Your task to perform on an android device: toggle pop-ups in chrome Image 0: 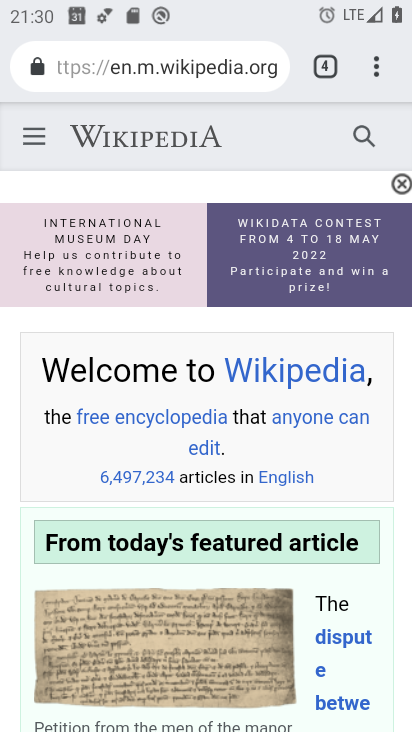
Step 0: press home button
Your task to perform on an android device: toggle pop-ups in chrome Image 1: 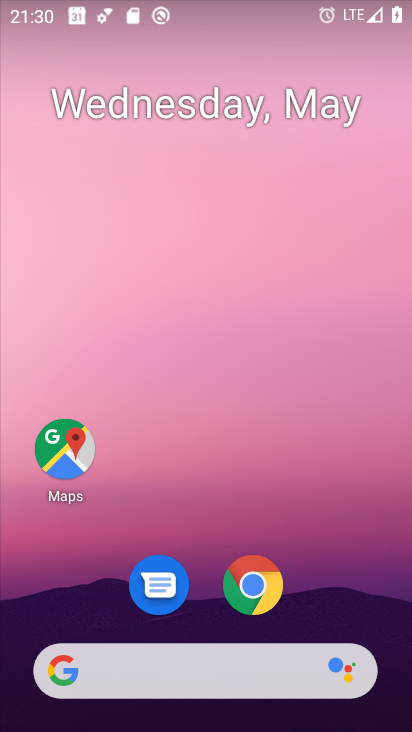
Step 1: click (259, 573)
Your task to perform on an android device: toggle pop-ups in chrome Image 2: 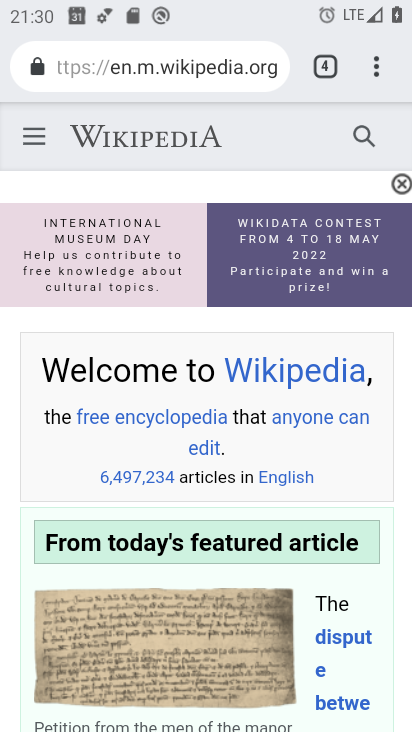
Step 2: click (373, 68)
Your task to perform on an android device: toggle pop-ups in chrome Image 3: 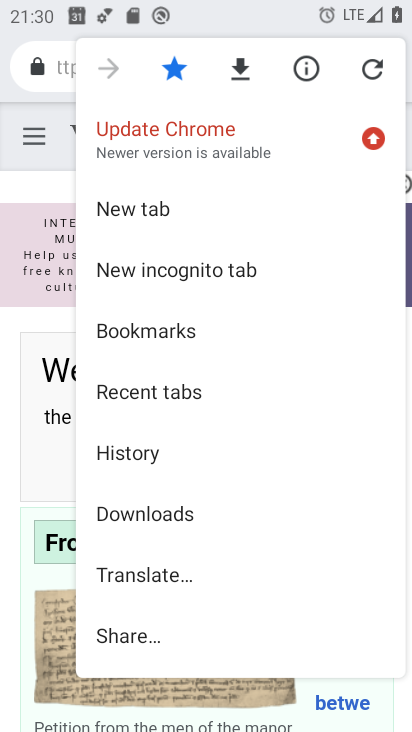
Step 3: drag from (247, 551) to (277, 127)
Your task to perform on an android device: toggle pop-ups in chrome Image 4: 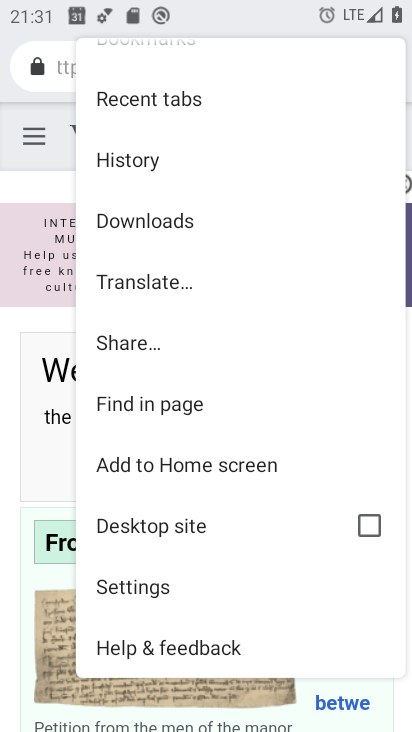
Step 4: click (183, 584)
Your task to perform on an android device: toggle pop-ups in chrome Image 5: 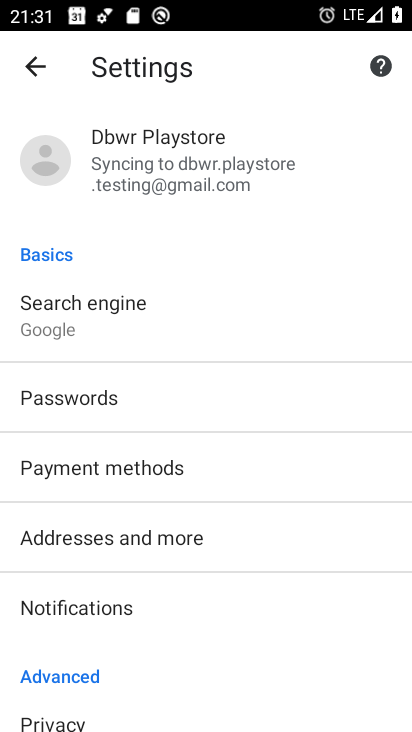
Step 5: drag from (205, 615) to (177, 165)
Your task to perform on an android device: toggle pop-ups in chrome Image 6: 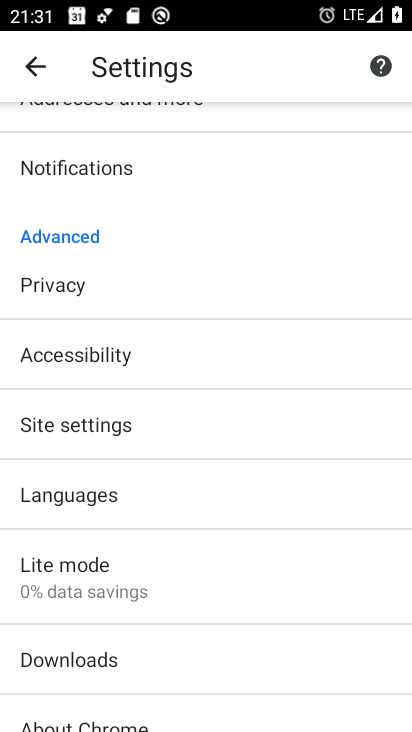
Step 6: click (203, 432)
Your task to perform on an android device: toggle pop-ups in chrome Image 7: 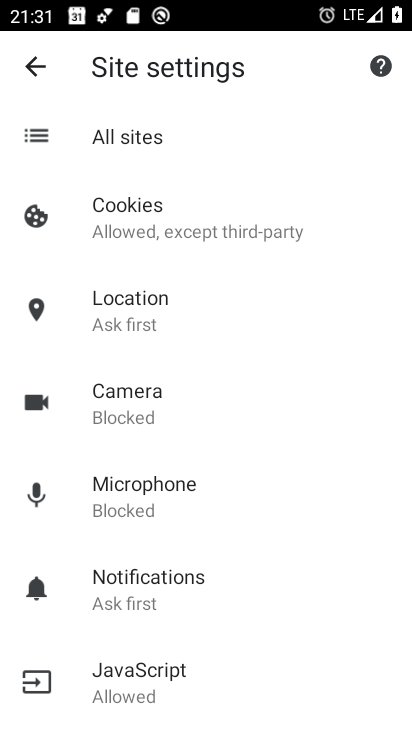
Step 7: drag from (274, 536) to (250, 243)
Your task to perform on an android device: toggle pop-ups in chrome Image 8: 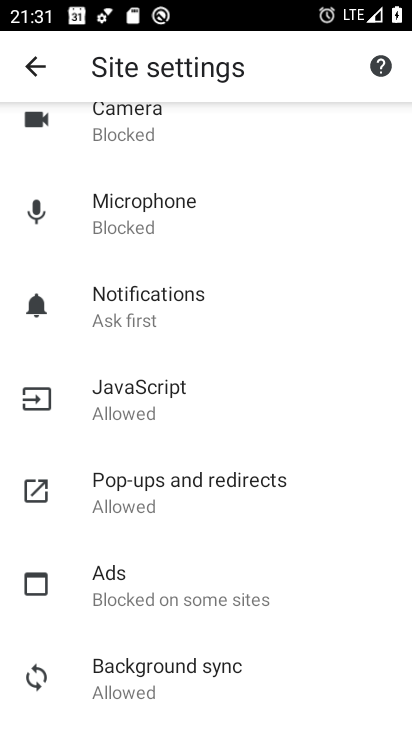
Step 8: click (243, 488)
Your task to perform on an android device: toggle pop-ups in chrome Image 9: 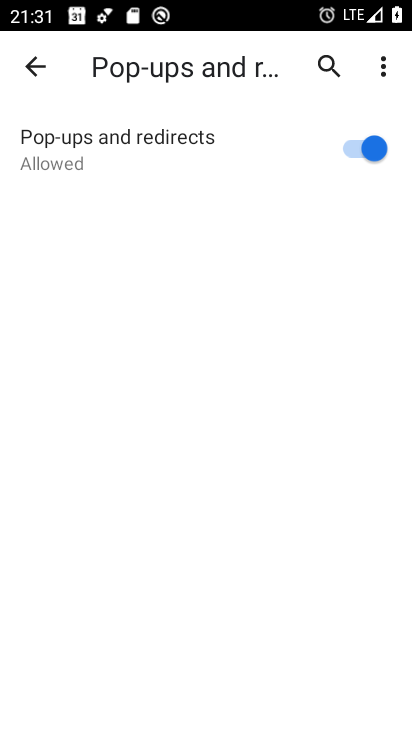
Step 9: click (345, 134)
Your task to perform on an android device: toggle pop-ups in chrome Image 10: 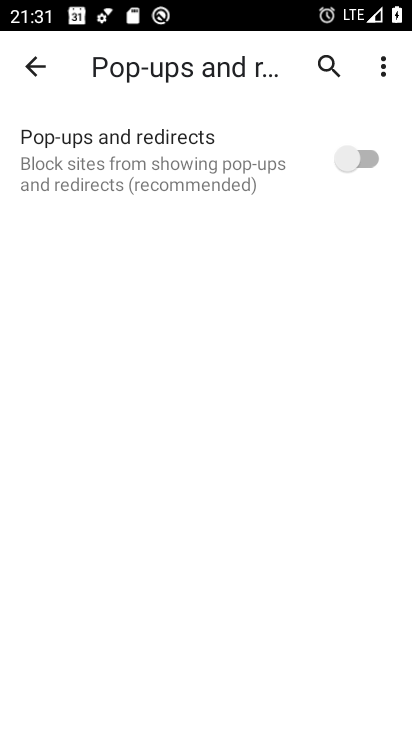
Step 10: task complete